Your task to perform on an android device: When is my next appointment? Image 0: 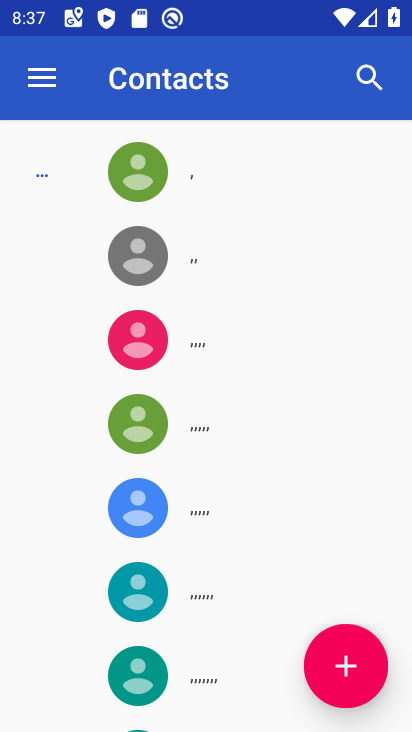
Step 0: press home button
Your task to perform on an android device: When is my next appointment? Image 1: 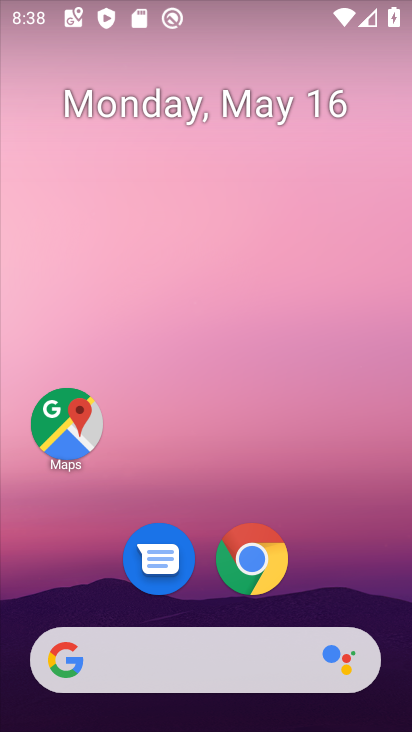
Step 1: drag from (322, 604) to (321, 47)
Your task to perform on an android device: When is my next appointment? Image 2: 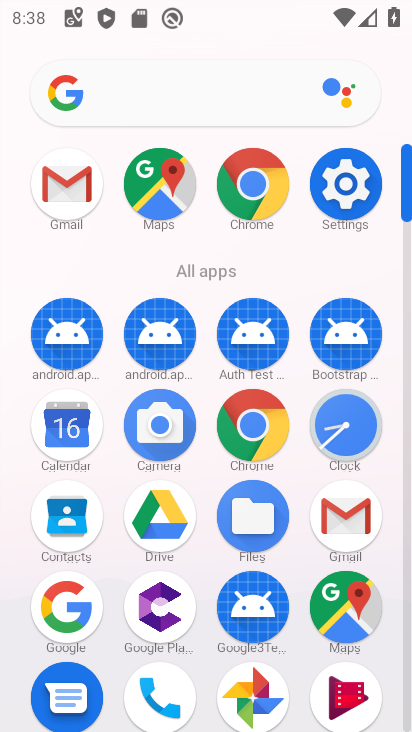
Step 2: click (61, 423)
Your task to perform on an android device: When is my next appointment? Image 3: 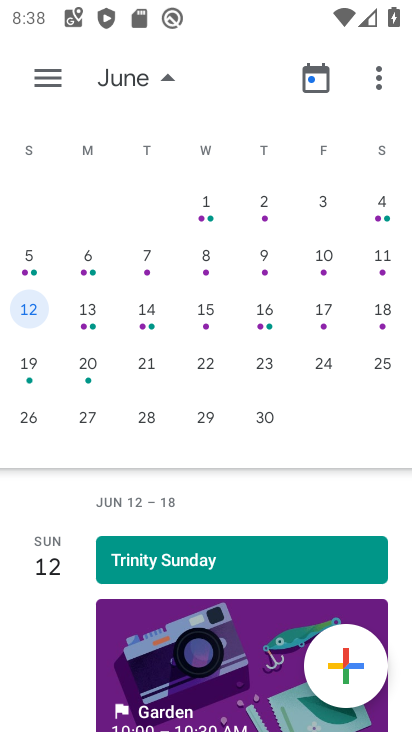
Step 3: drag from (41, 310) to (407, 281)
Your task to perform on an android device: When is my next appointment? Image 4: 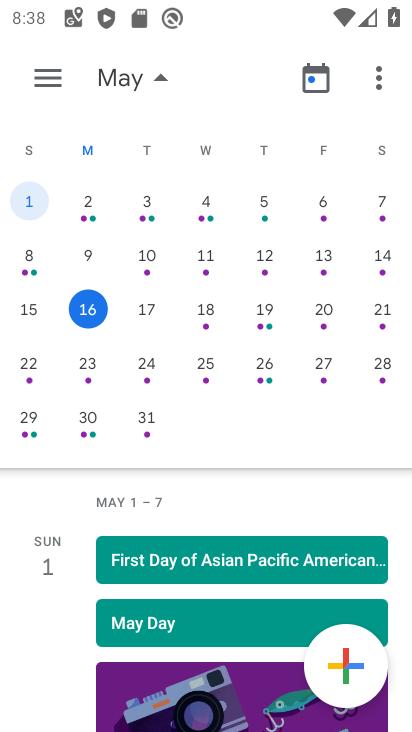
Step 4: click (83, 309)
Your task to perform on an android device: When is my next appointment? Image 5: 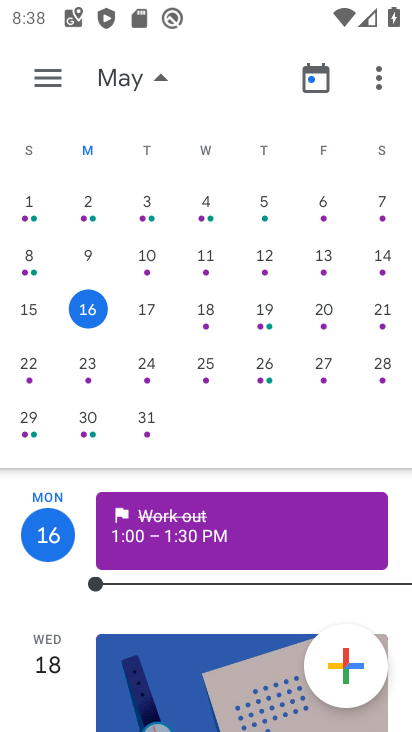
Step 5: task complete